Your task to perform on an android device: Turn on the flashlight Image 0: 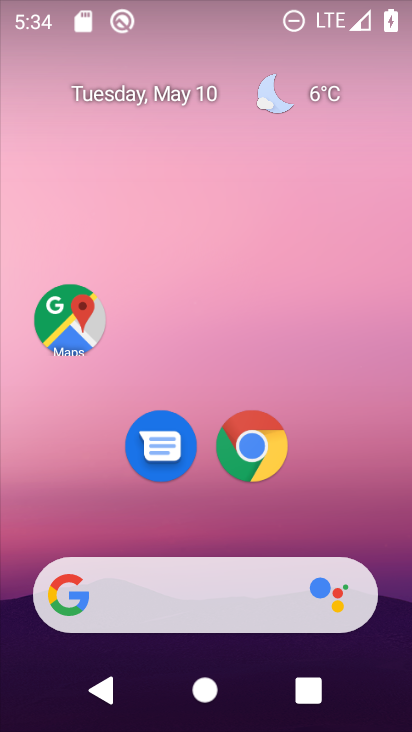
Step 0: drag from (227, 13) to (162, 455)
Your task to perform on an android device: Turn on the flashlight Image 1: 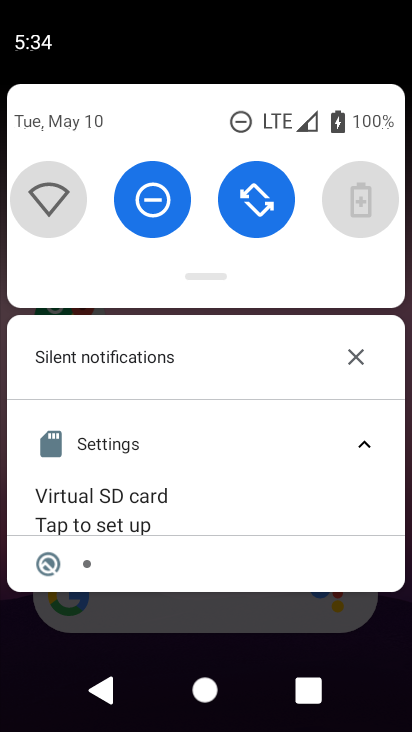
Step 1: task complete